Your task to perform on an android device: Open Google Maps Image 0: 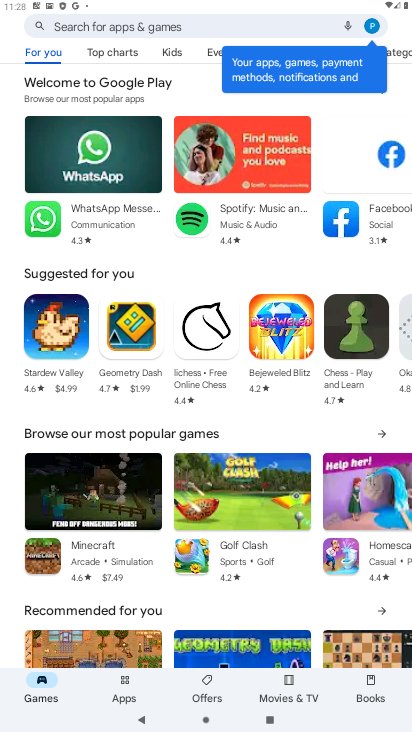
Step 0: press home button
Your task to perform on an android device: Open Google Maps Image 1: 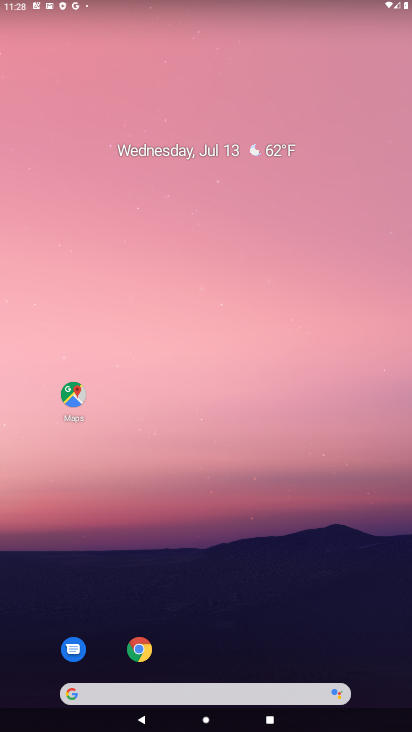
Step 1: drag from (385, 638) to (175, 59)
Your task to perform on an android device: Open Google Maps Image 2: 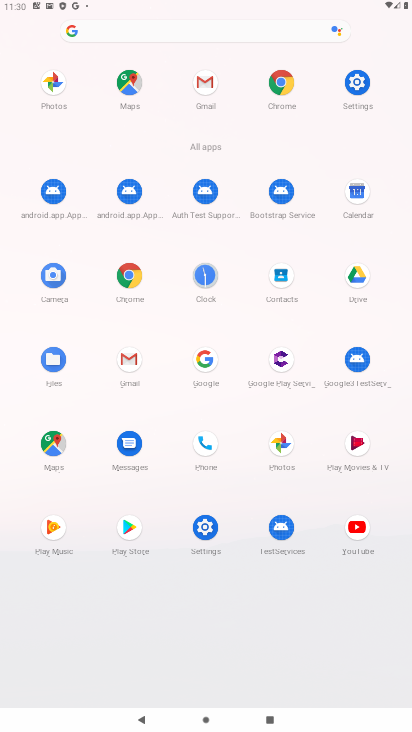
Step 2: click (50, 447)
Your task to perform on an android device: Open Google Maps Image 3: 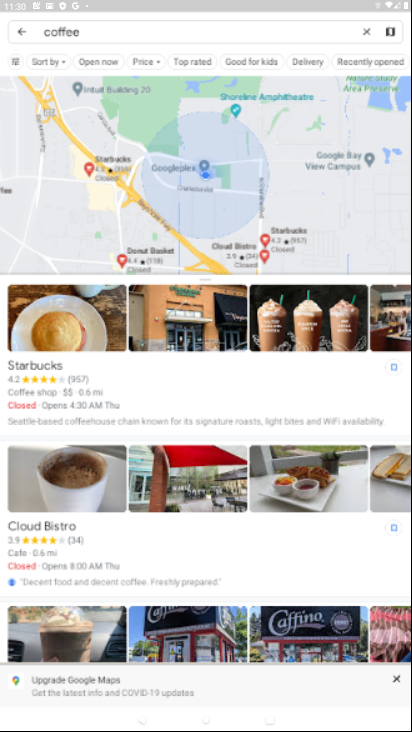
Step 3: click (365, 31)
Your task to perform on an android device: Open Google Maps Image 4: 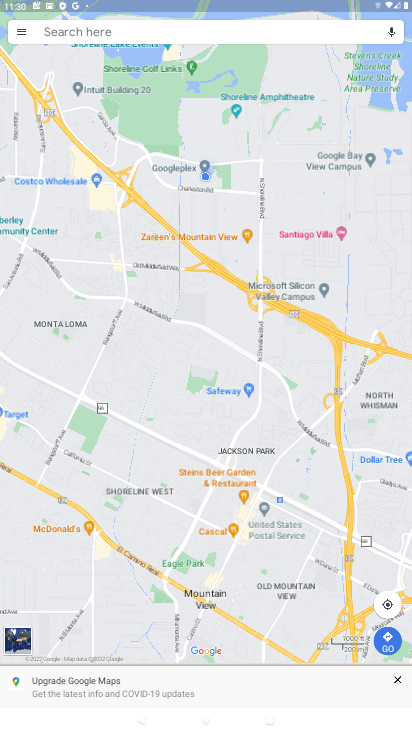
Step 4: task complete